Your task to perform on an android device: turn pop-ups off in chrome Image 0: 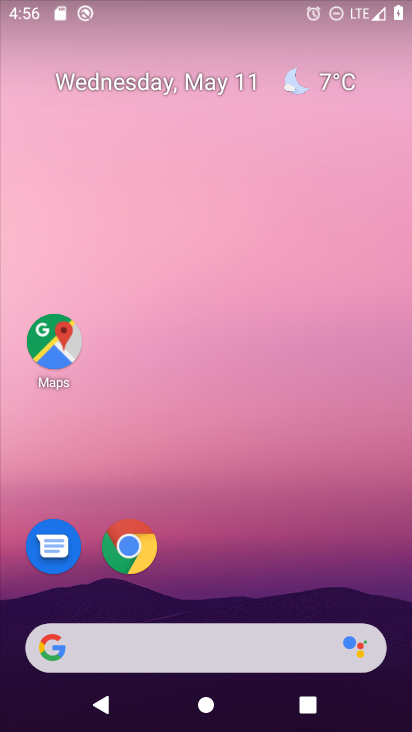
Step 0: drag from (261, 630) to (278, 59)
Your task to perform on an android device: turn pop-ups off in chrome Image 1: 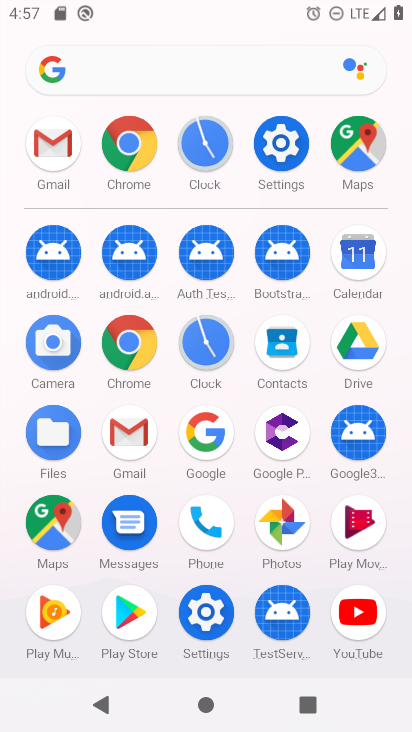
Step 1: click (152, 359)
Your task to perform on an android device: turn pop-ups off in chrome Image 2: 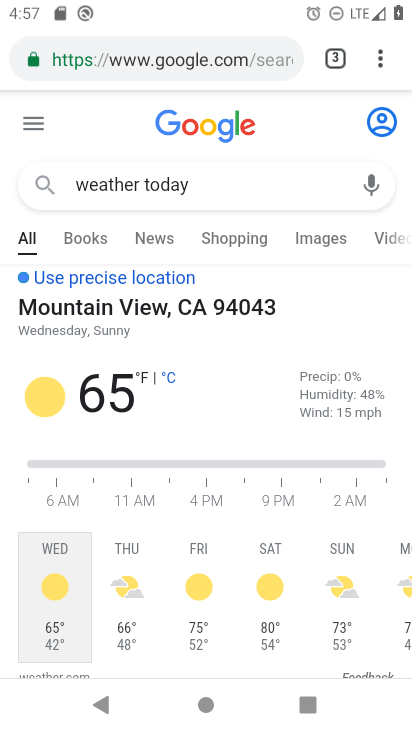
Step 2: click (380, 60)
Your task to perform on an android device: turn pop-ups off in chrome Image 3: 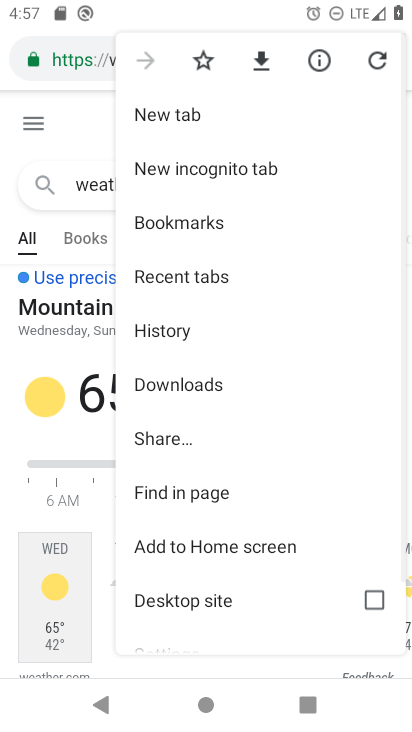
Step 3: drag from (269, 583) to (324, 116)
Your task to perform on an android device: turn pop-ups off in chrome Image 4: 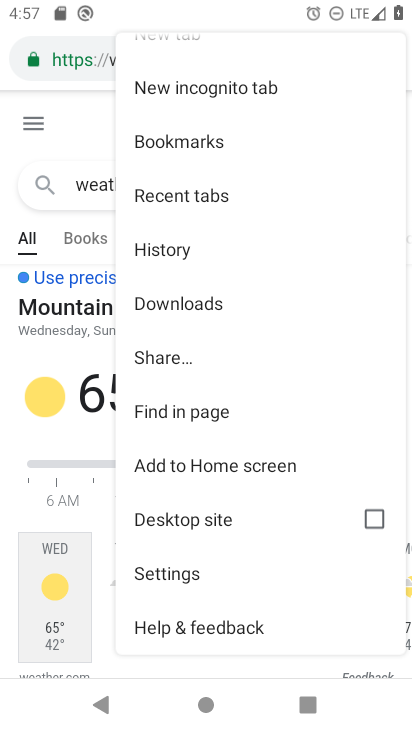
Step 4: click (220, 566)
Your task to perform on an android device: turn pop-ups off in chrome Image 5: 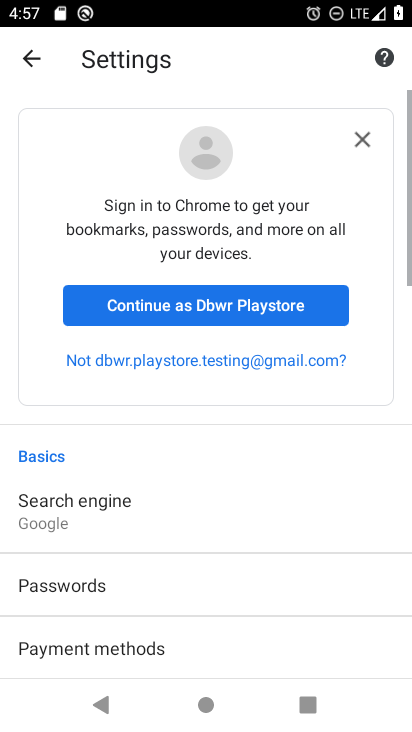
Step 5: drag from (271, 632) to (273, 107)
Your task to perform on an android device: turn pop-ups off in chrome Image 6: 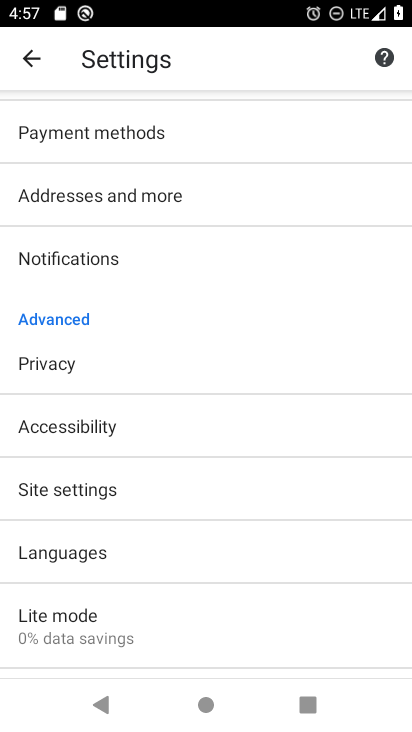
Step 6: drag from (171, 677) to (201, 396)
Your task to perform on an android device: turn pop-ups off in chrome Image 7: 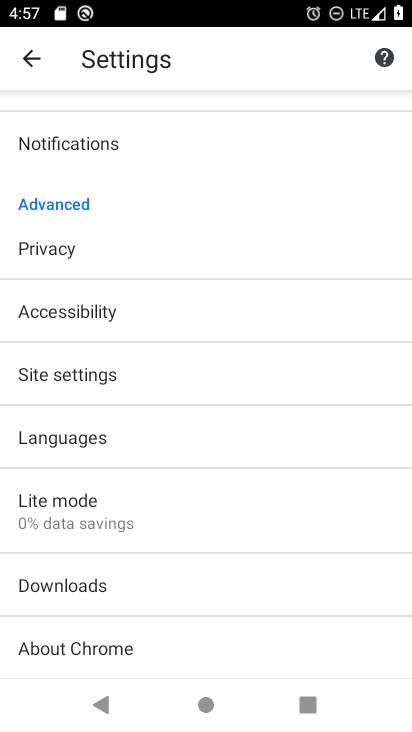
Step 7: click (200, 373)
Your task to perform on an android device: turn pop-ups off in chrome Image 8: 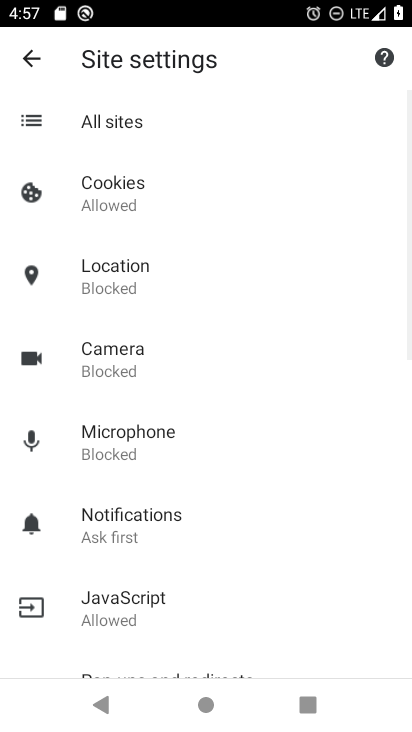
Step 8: drag from (324, 640) to (316, 167)
Your task to perform on an android device: turn pop-ups off in chrome Image 9: 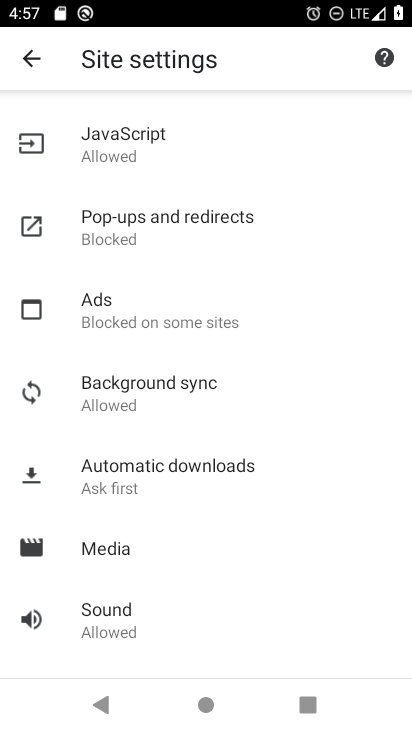
Step 9: click (243, 221)
Your task to perform on an android device: turn pop-ups off in chrome Image 10: 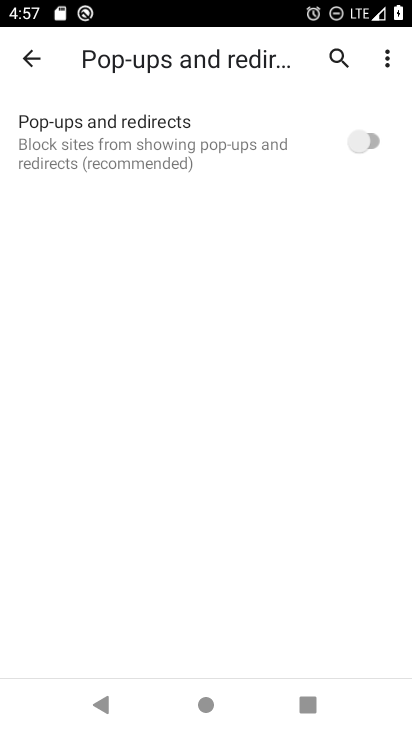
Step 10: task complete